Your task to perform on an android device: toggle show notifications on the lock screen Image 0: 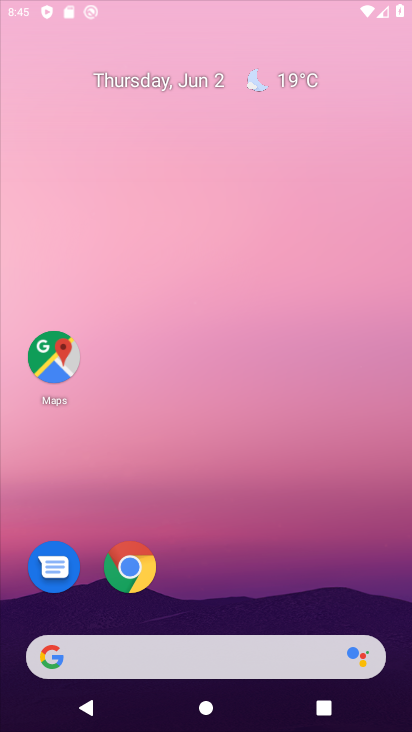
Step 0: press home button
Your task to perform on an android device: toggle show notifications on the lock screen Image 1: 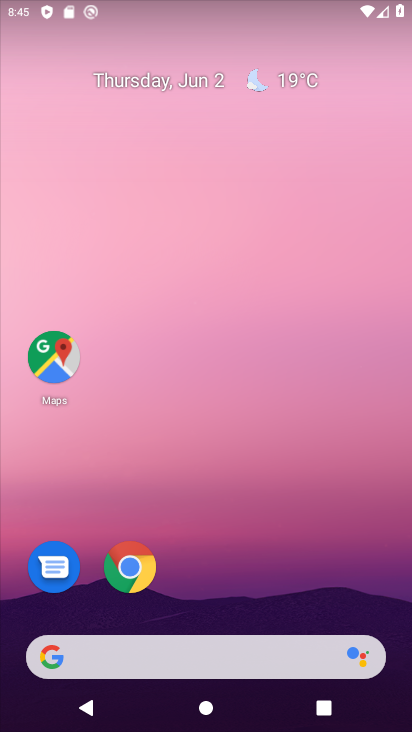
Step 1: drag from (223, 618) to (227, 31)
Your task to perform on an android device: toggle show notifications on the lock screen Image 2: 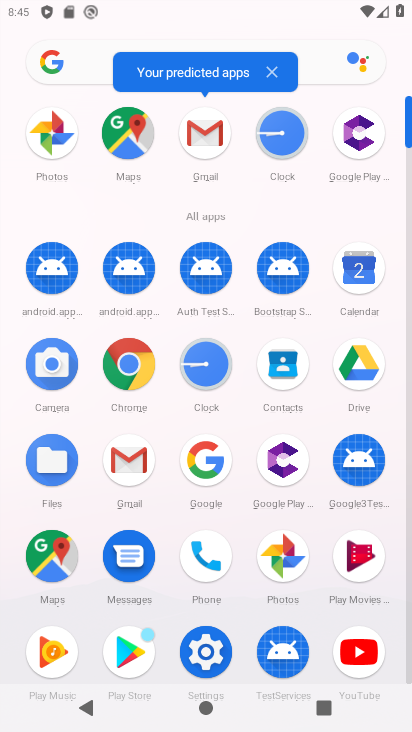
Step 2: drag from (168, 577) to (208, 188)
Your task to perform on an android device: toggle show notifications on the lock screen Image 3: 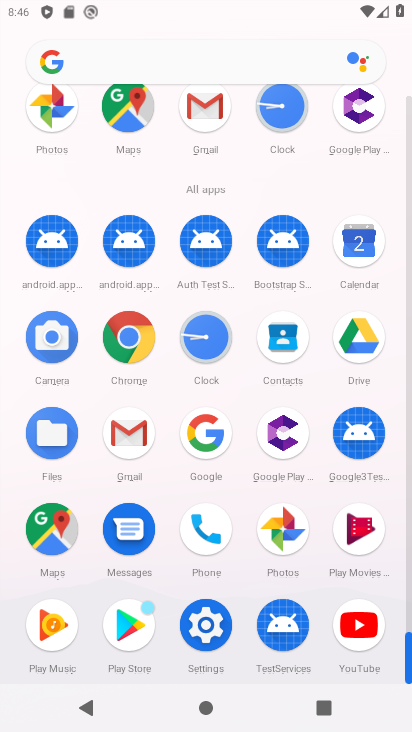
Step 3: click (205, 622)
Your task to perform on an android device: toggle show notifications on the lock screen Image 4: 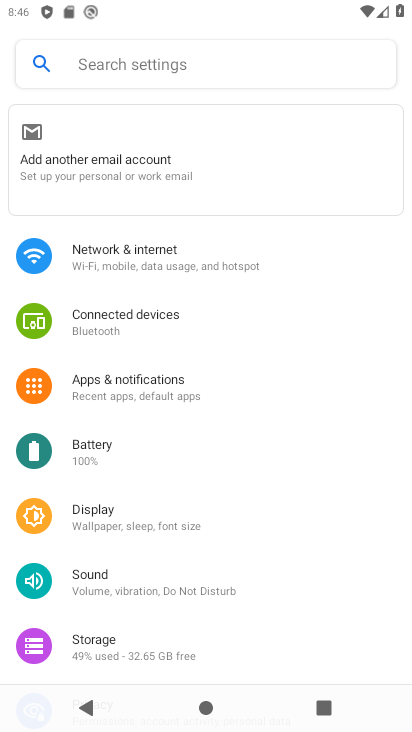
Step 4: click (158, 376)
Your task to perform on an android device: toggle show notifications on the lock screen Image 5: 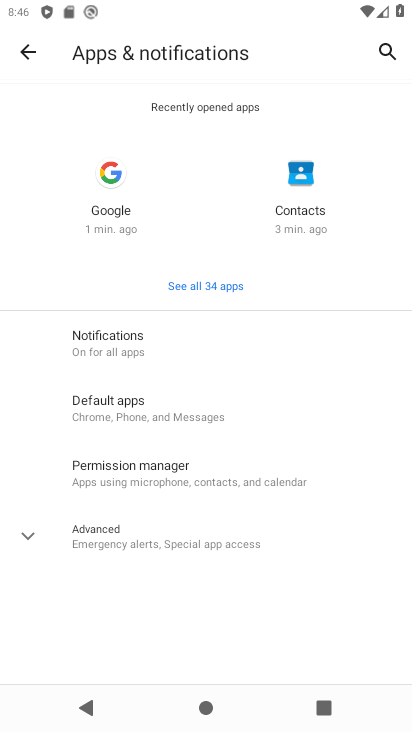
Step 5: click (161, 333)
Your task to perform on an android device: toggle show notifications on the lock screen Image 6: 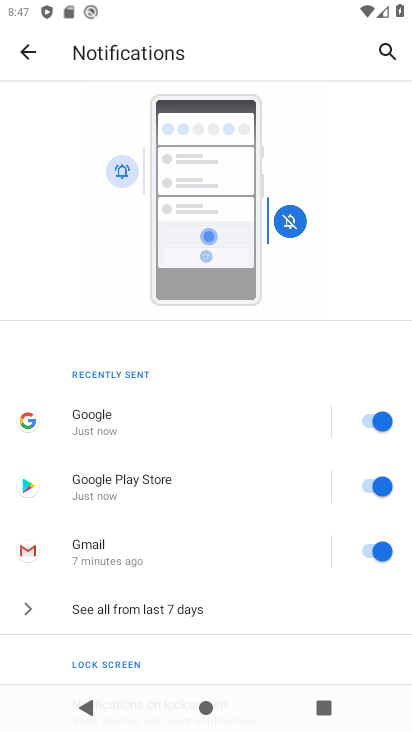
Step 6: drag from (198, 651) to (233, 166)
Your task to perform on an android device: toggle show notifications on the lock screen Image 7: 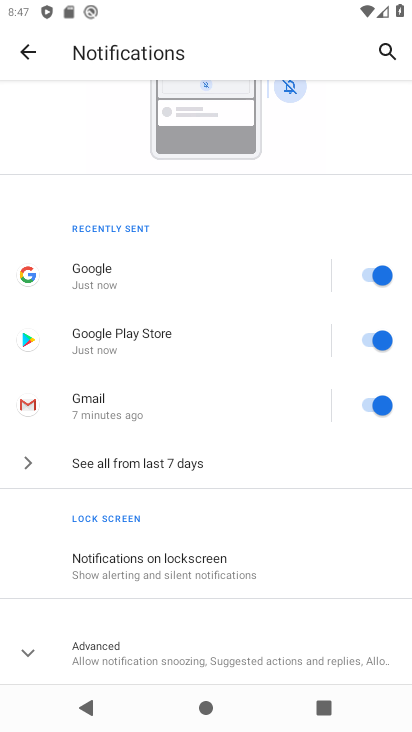
Step 7: click (207, 571)
Your task to perform on an android device: toggle show notifications on the lock screen Image 8: 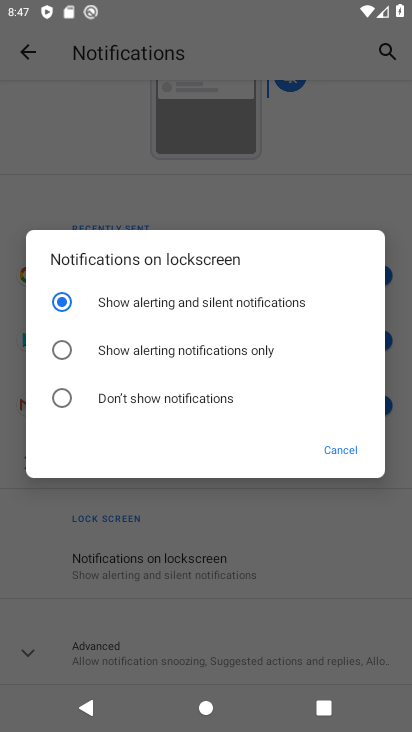
Step 8: click (66, 341)
Your task to perform on an android device: toggle show notifications on the lock screen Image 9: 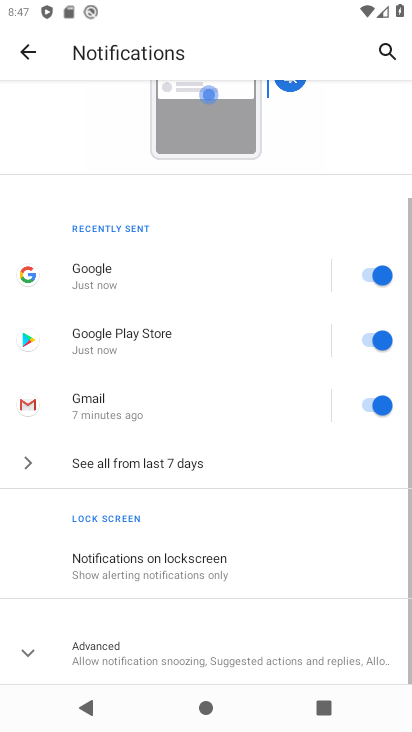
Step 9: task complete